Your task to perform on an android device: Go to internet settings Image 0: 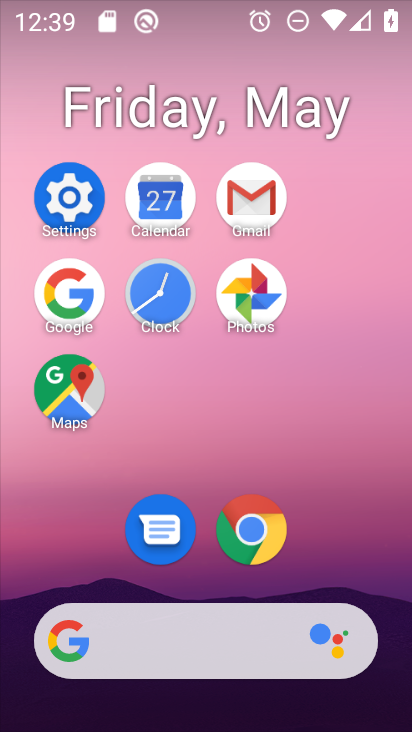
Step 0: click (63, 212)
Your task to perform on an android device: Go to internet settings Image 1: 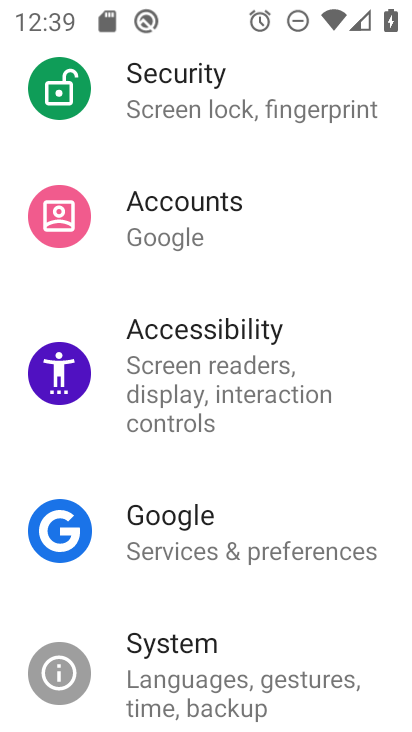
Step 1: drag from (329, 57) to (402, 686)
Your task to perform on an android device: Go to internet settings Image 2: 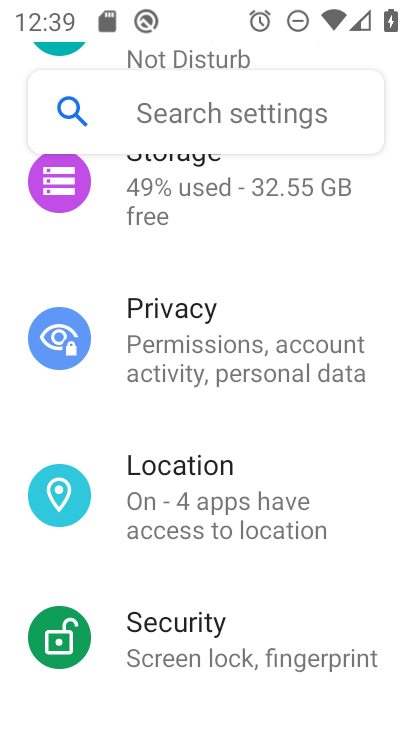
Step 2: drag from (245, 165) to (321, 701)
Your task to perform on an android device: Go to internet settings Image 3: 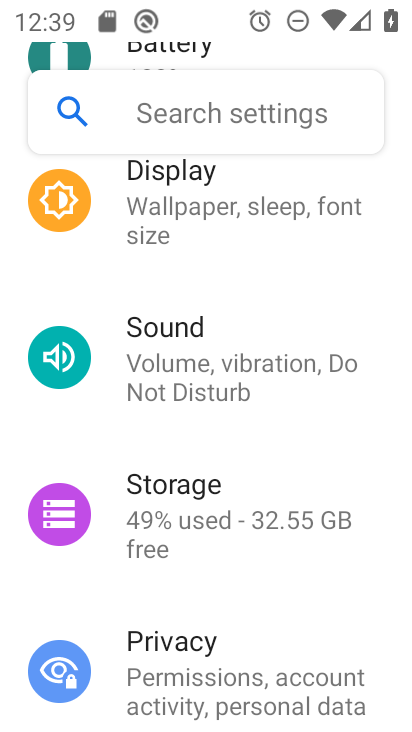
Step 3: drag from (290, 164) to (281, 715)
Your task to perform on an android device: Go to internet settings Image 4: 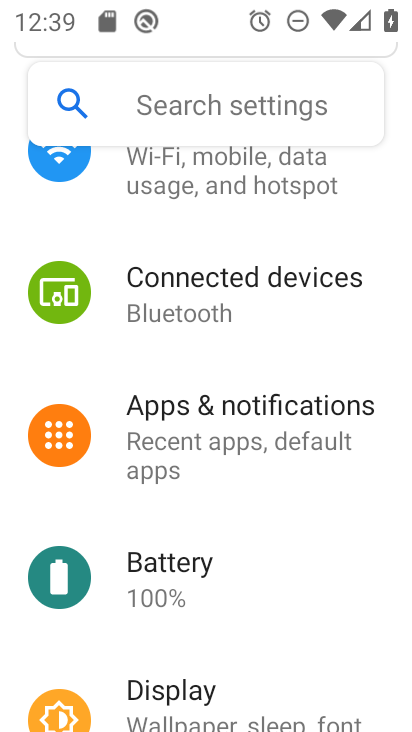
Step 4: drag from (268, 185) to (297, 664)
Your task to perform on an android device: Go to internet settings Image 5: 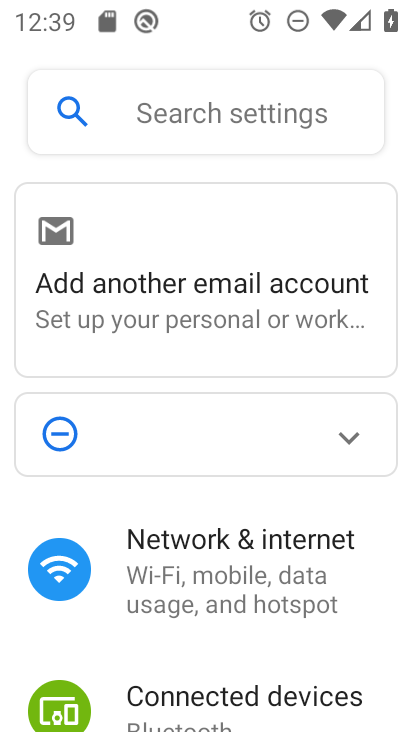
Step 5: click (261, 581)
Your task to perform on an android device: Go to internet settings Image 6: 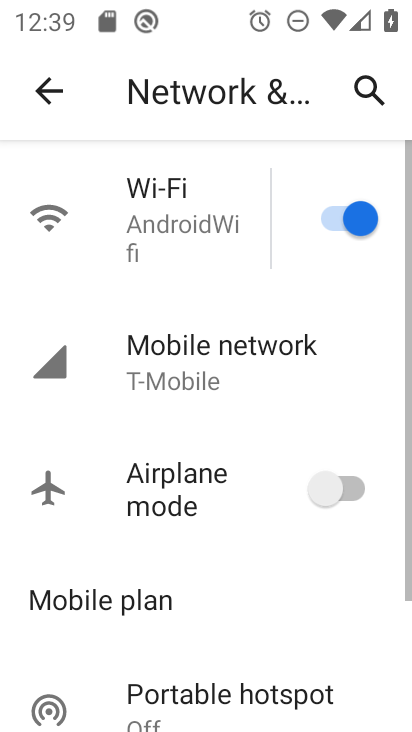
Step 6: task complete